Your task to perform on an android device: Open Maps and search for coffee Image 0: 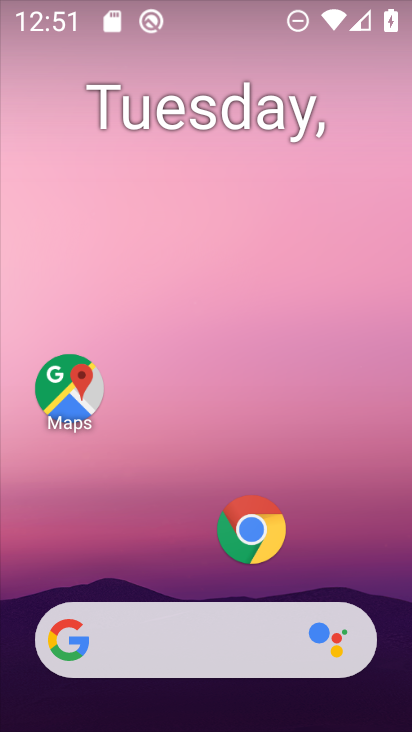
Step 0: drag from (247, 707) to (269, 31)
Your task to perform on an android device: Open Maps and search for coffee Image 1: 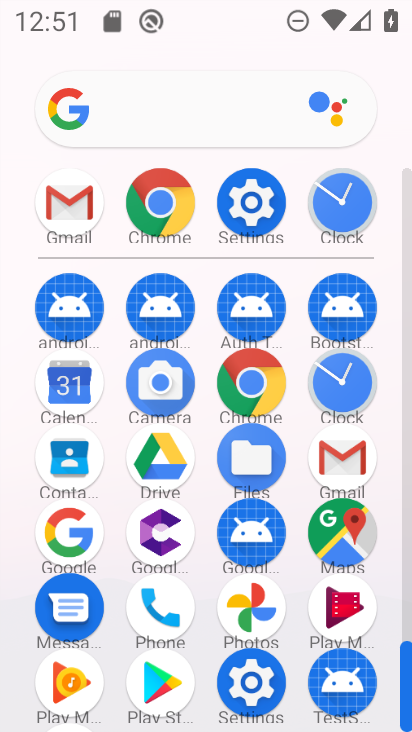
Step 1: click (325, 532)
Your task to perform on an android device: Open Maps and search for coffee Image 2: 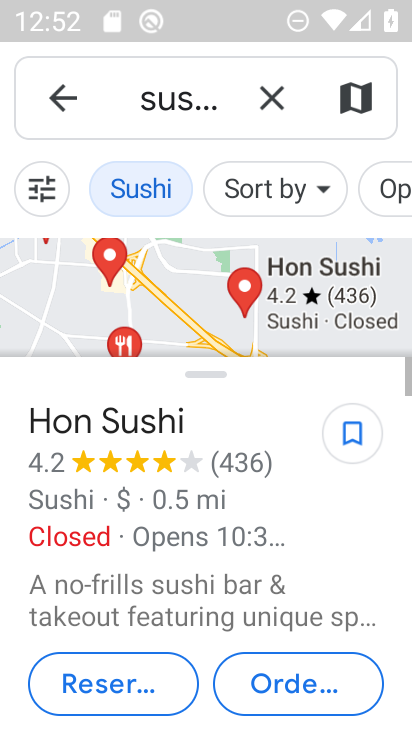
Step 2: click (268, 83)
Your task to perform on an android device: Open Maps and search for coffee Image 3: 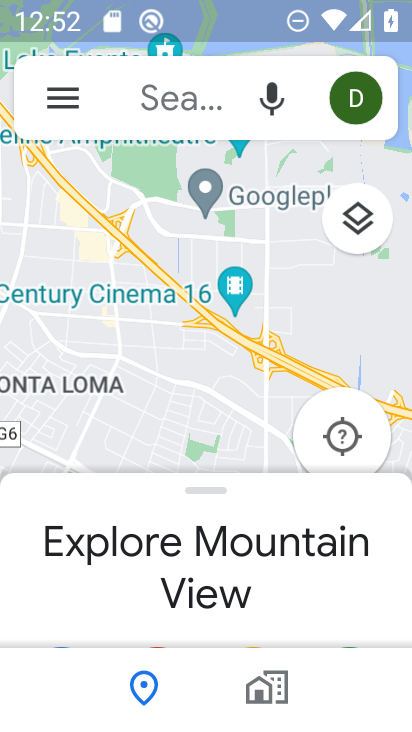
Step 3: click (155, 89)
Your task to perform on an android device: Open Maps and search for coffee Image 4: 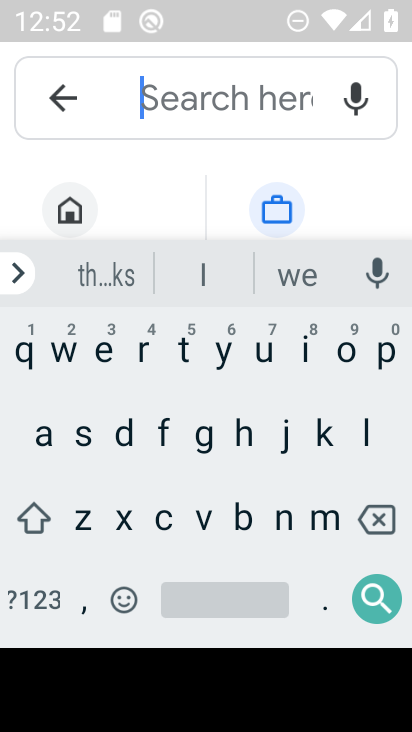
Step 4: click (155, 513)
Your task to perform on an android device: Open Maps and search for coffee Image 5: 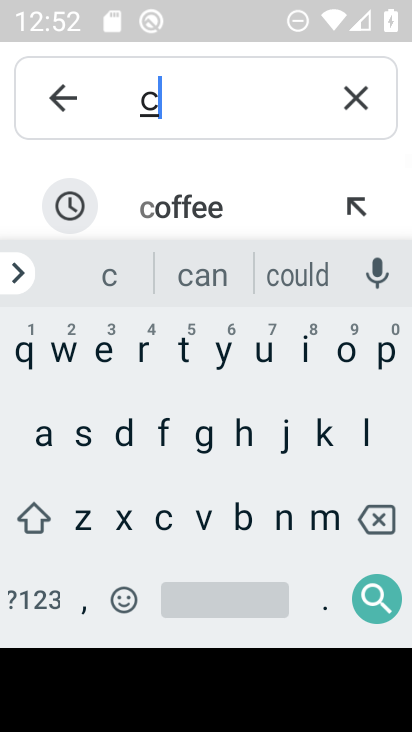
Step 5: click (226, 204)
Your task to perform on an android device: Open Maps and search for coffee Image 6: 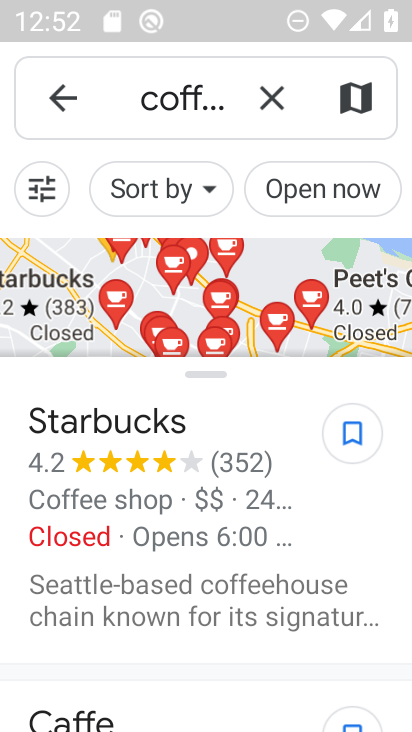
Step 6: click (126, 255)
Your task to perform on an android device: Open Maps and search for coffee Image 7: 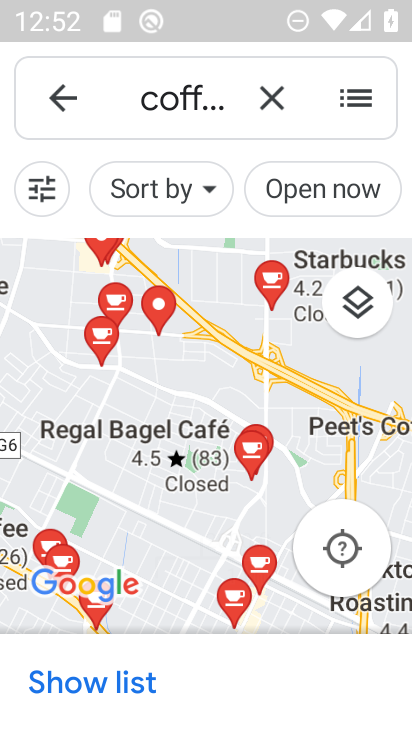
Step 7: task complete